Your task to perform on an android device: Open Android settings Image 0: 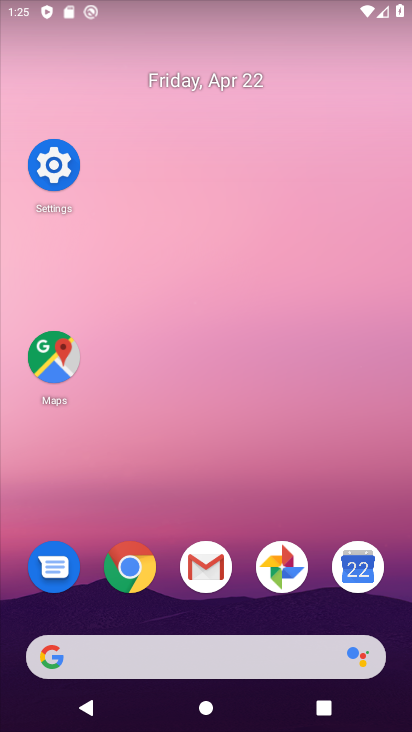
Step 0: click (53, 160)
Your task to perform on an android device: Open Android settings Image 1: 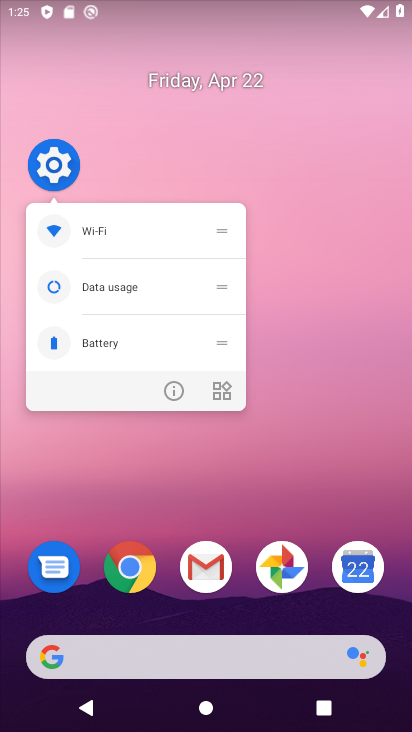
Step 1: click (48, 168)
Your task to perform on an android device: Open Android settings Image 2: 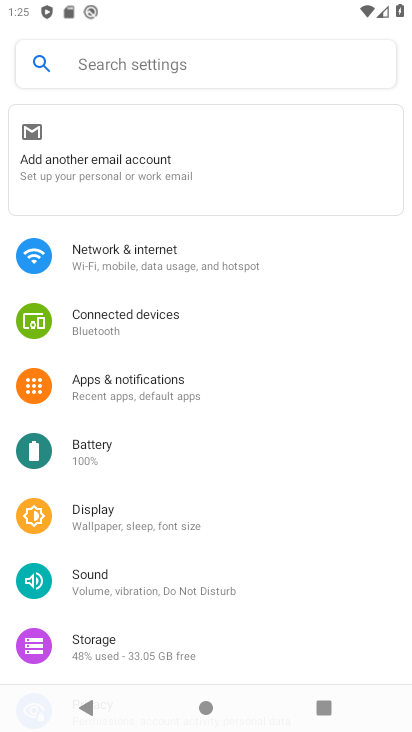
Step 2: task complete